Your task to perform on an android device: Search for seafood restaurants on Google Maps Image 0: 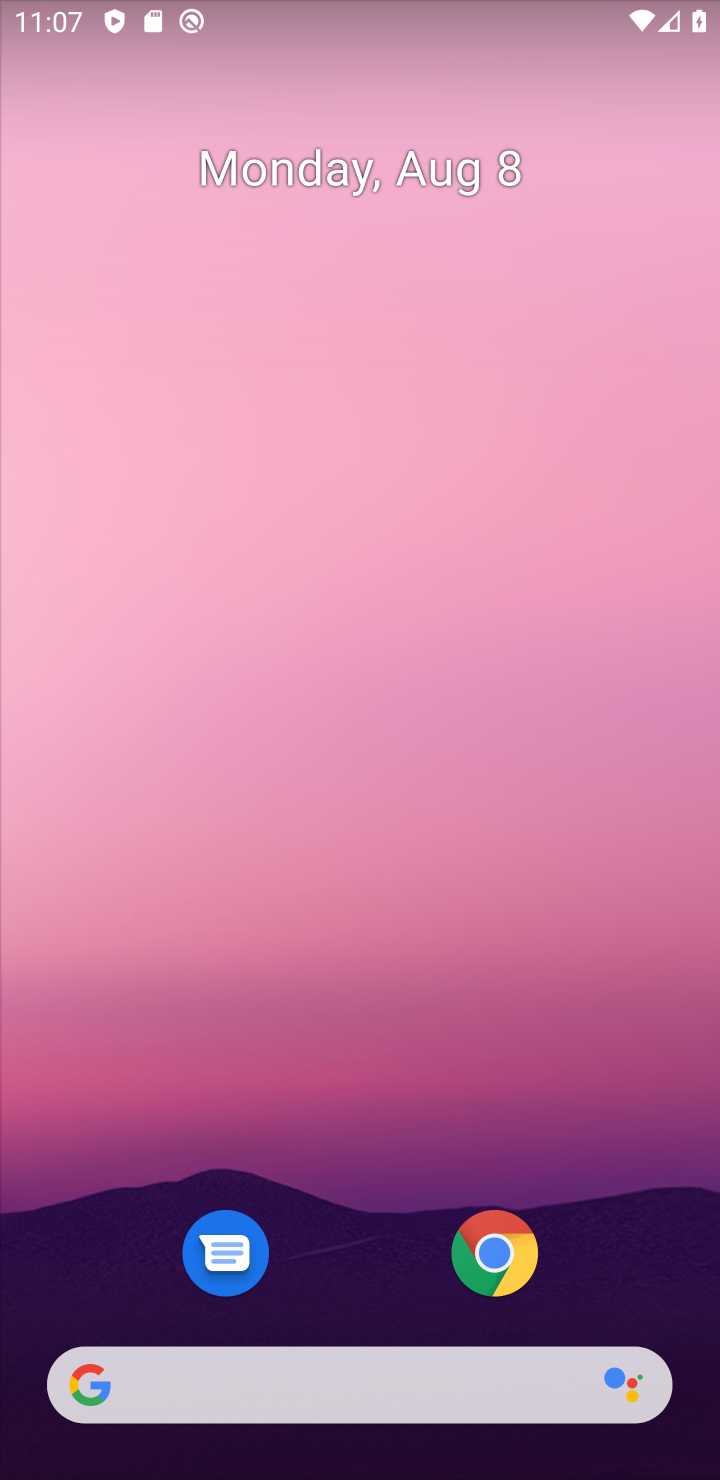
Step 0: press home button
Your task to perform on an android device: Search for seafood restaurants on Google Maps Image 1: 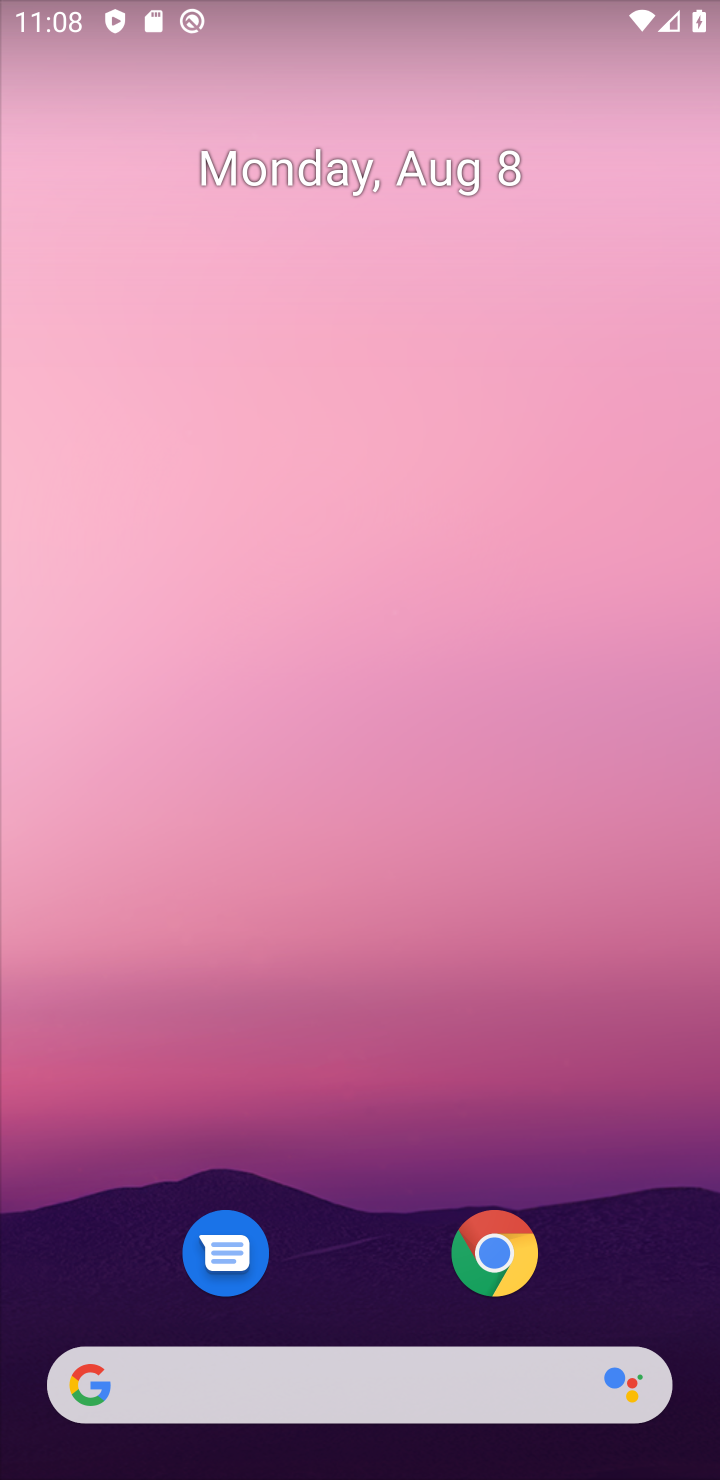
Step 1: drag from (385, 1176) to (385, 368)
Your task to perform on an android device: Search for seafood restaurants on Google Maps Image 2: 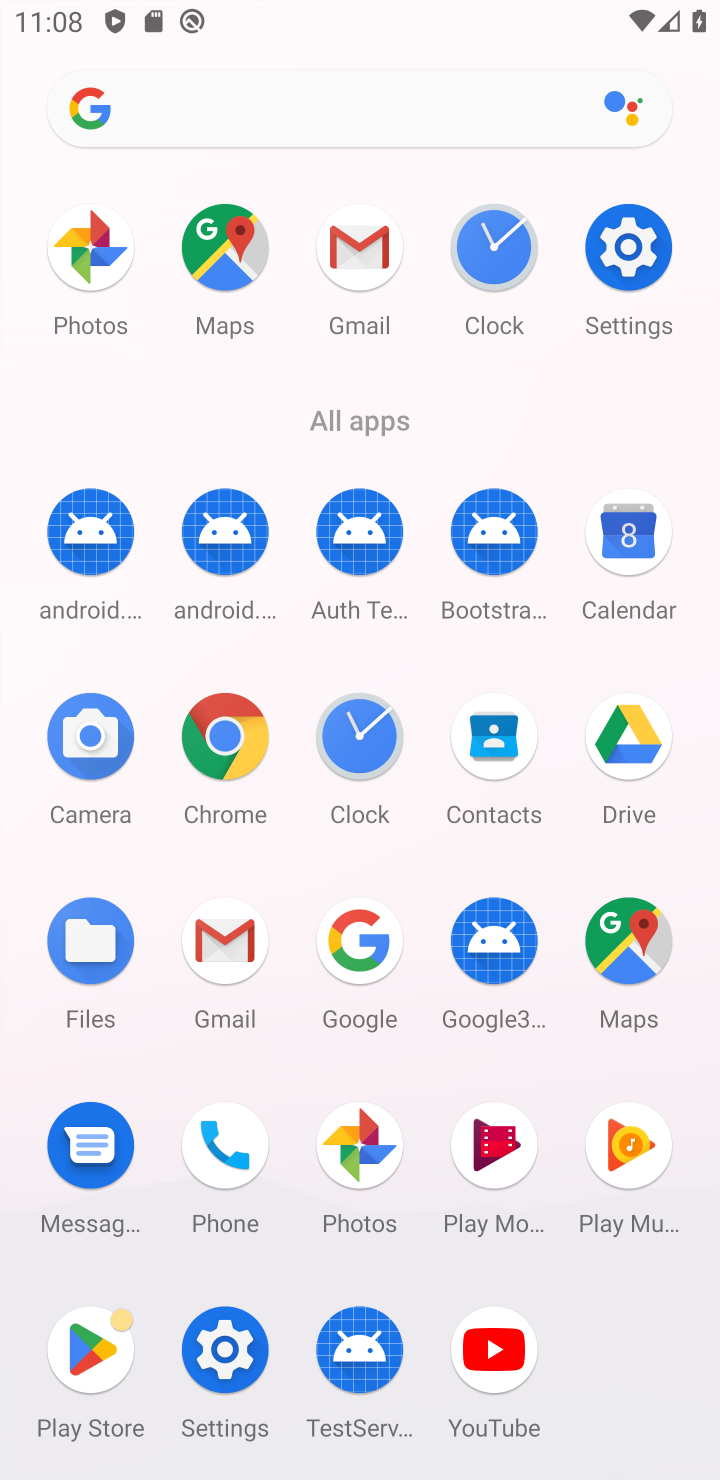
Step 2: click (638, 925)
Your task to perform on an android device: Search for seafood restaurants on Google Maps Image 3: 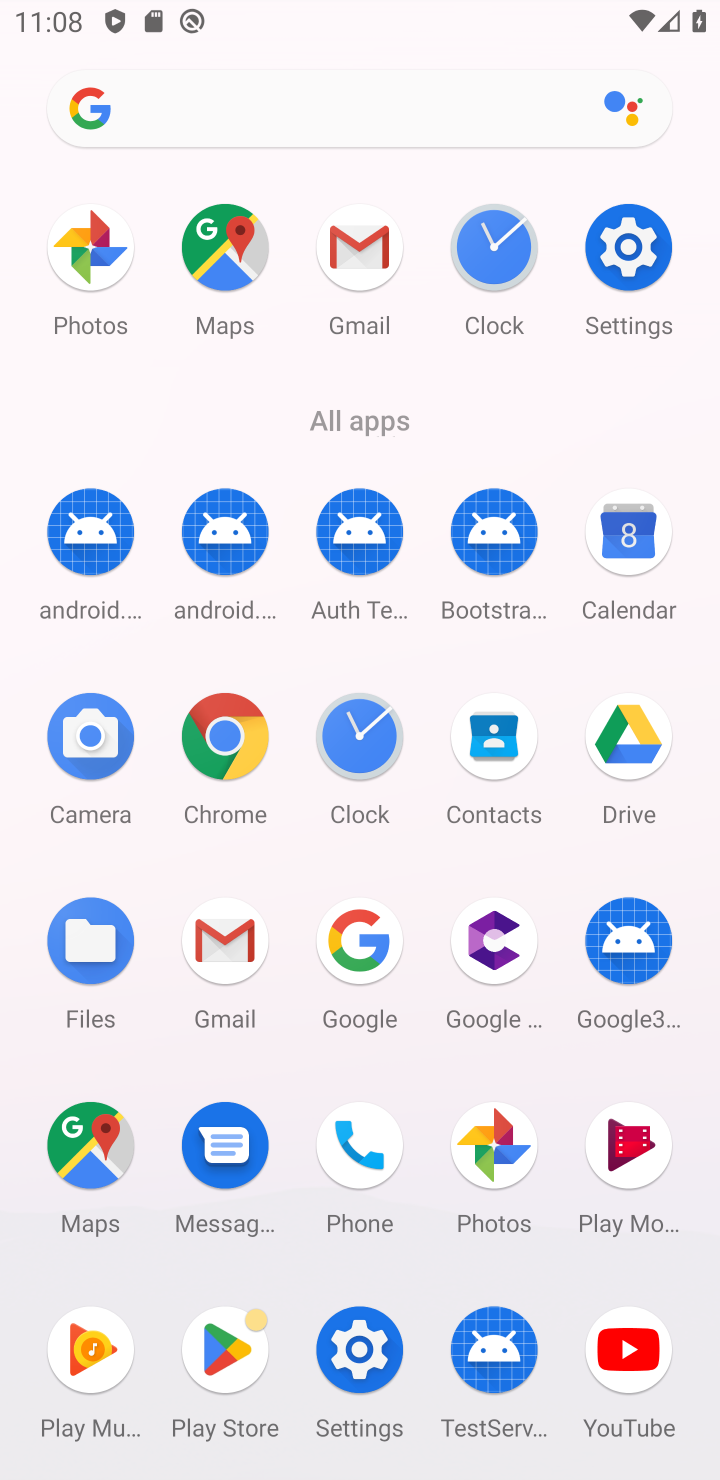
Step 3: click (92, 1128)
Your task to perform on an android device: Search for seafood restaurants on Google Maps Image 4: 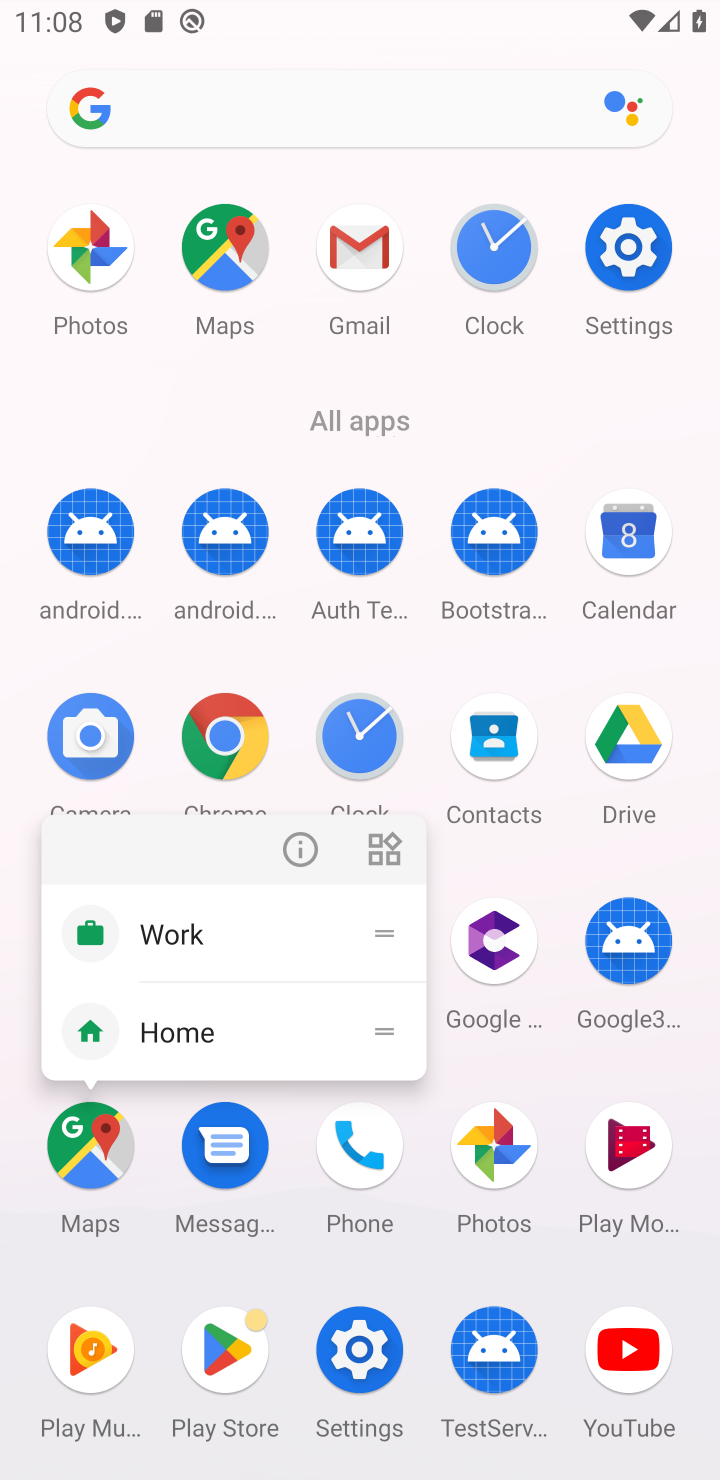
Step 4: click (92, 1128)
Your task to perform on an android device: Search for seafood restaurants on Google Maps Image 5: 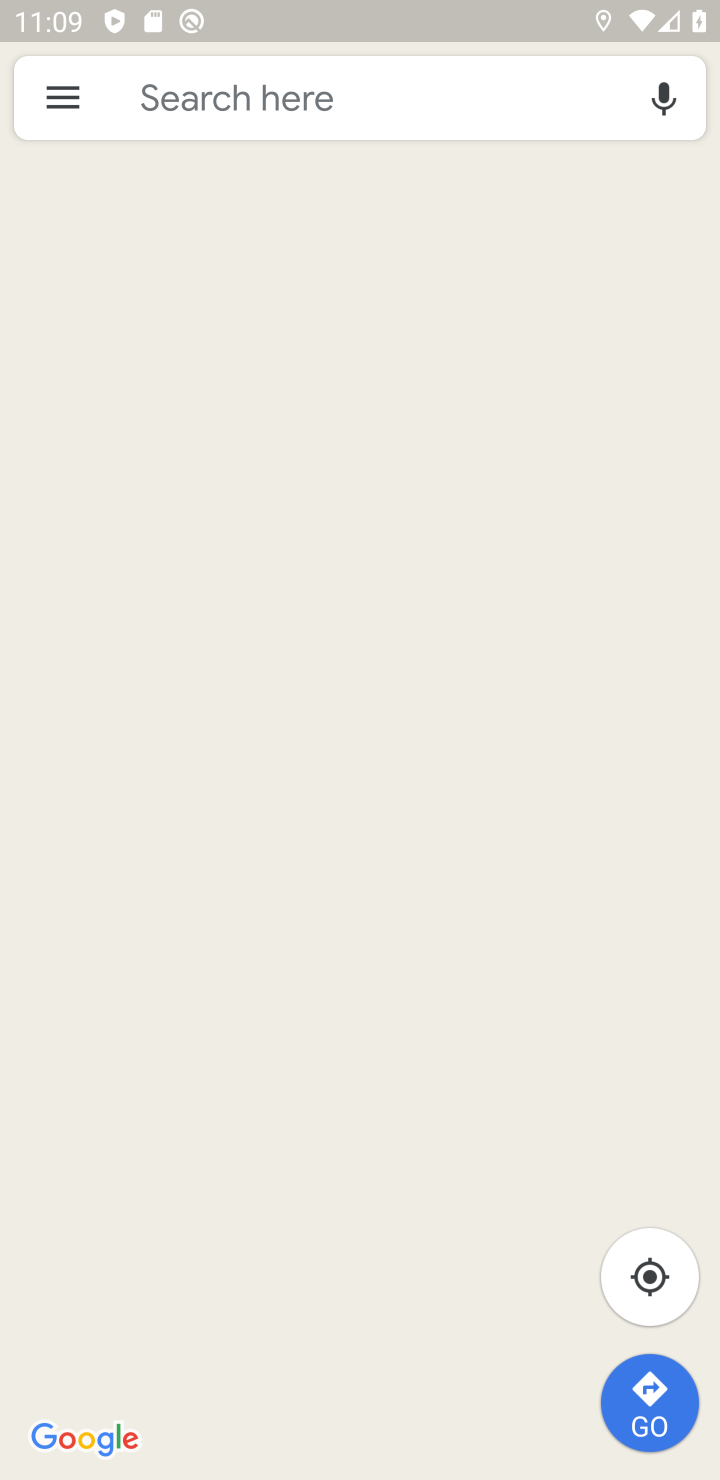
Step 5: click (310, 94)
Your task to perform on an android device: Search for seafood restaurants on Google Maps Image 6: 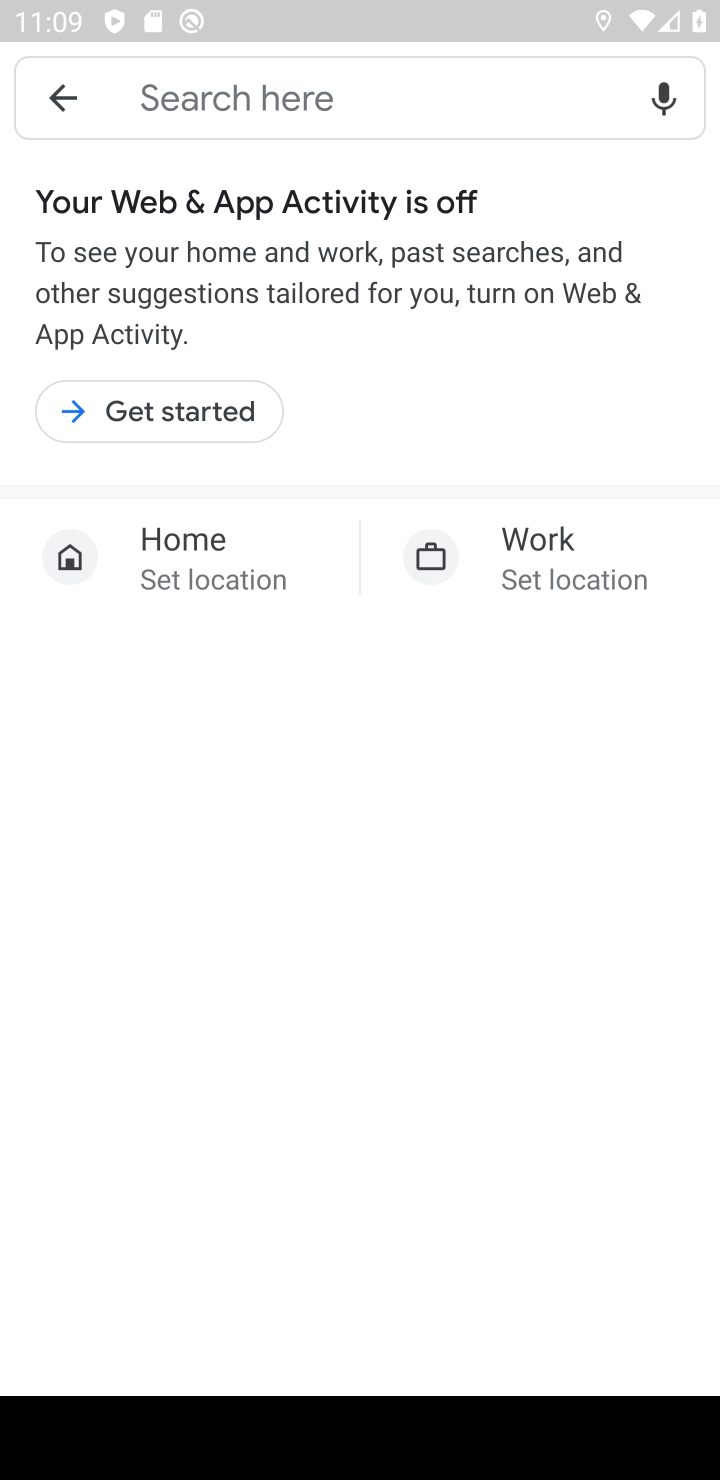
Step 6: click (301, 97)
Your task to perform on an android device: Search for seafood restaurants on Google Maps Image 7: 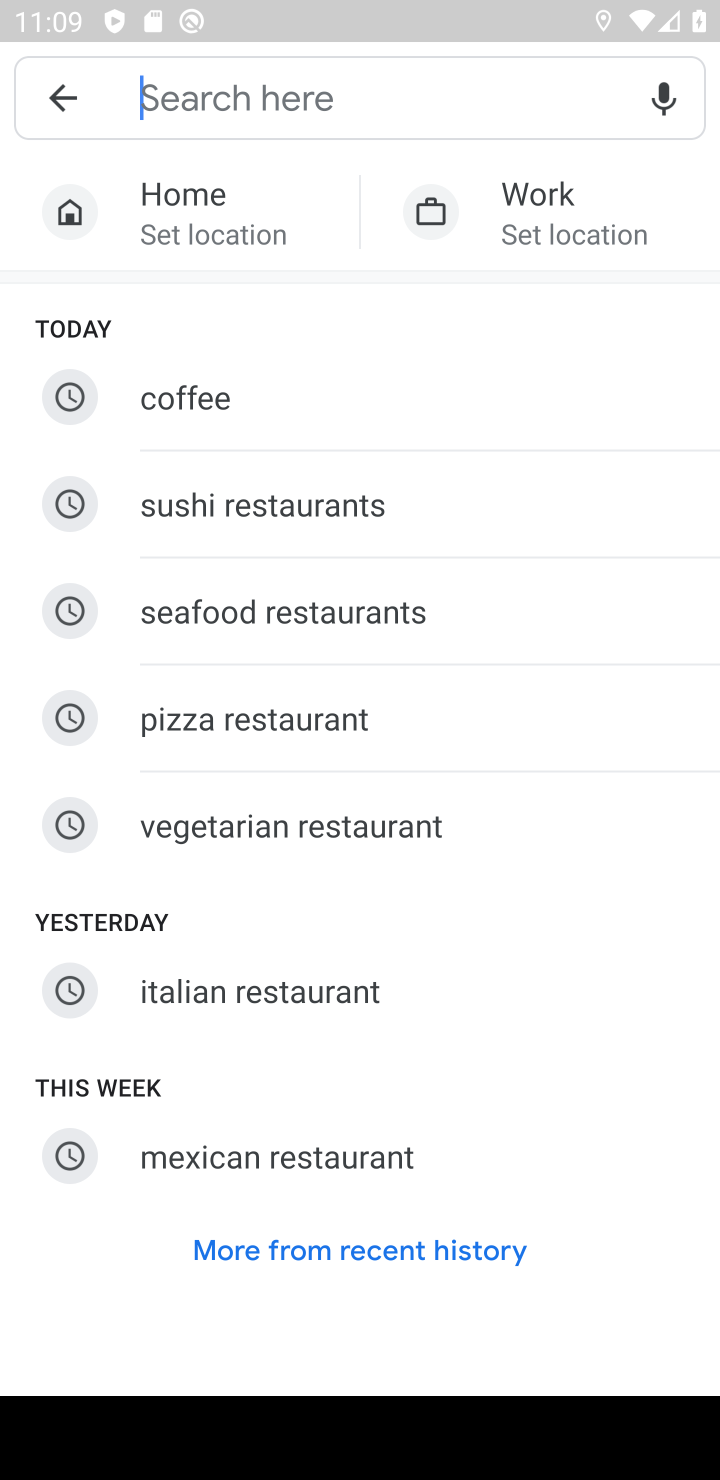
Step 7: click (225, 630)
Your task to perform on an android device: Search for seafood restaurants on Google Maps Image 8: 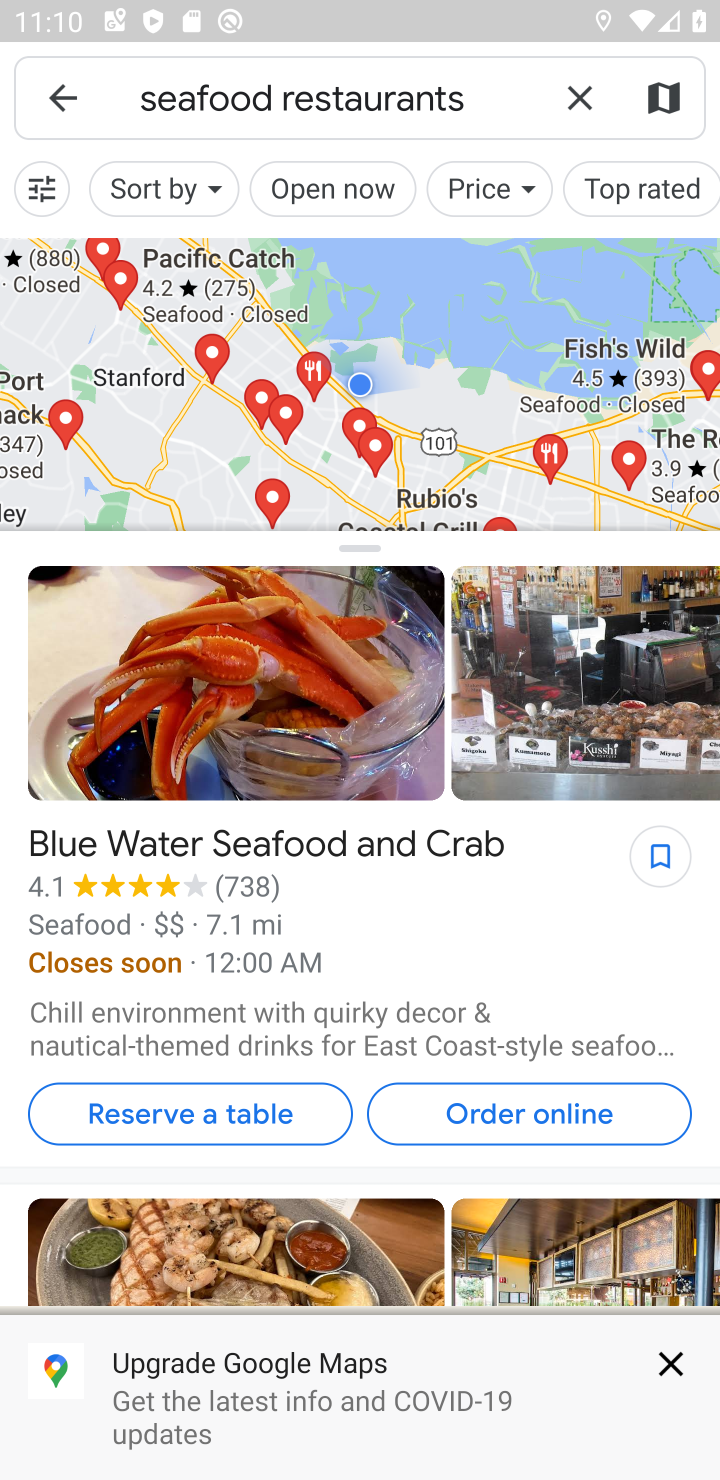
Step 8: task complete